Your task to perform on an android device: Go to battery settings Image 0: 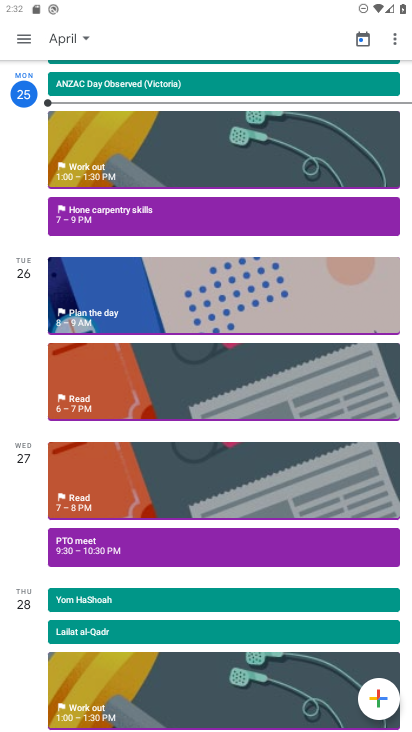
Step 0: press home button
Your task to perform on an android device: Go to battery settings Image 1: 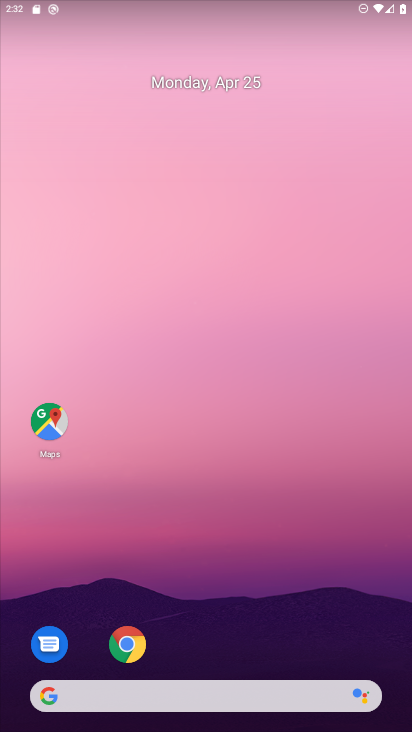
Step 1: drag from (202, 640) to (170, 367)
Your task to perform on an android device: Go to battery settings Image 2: 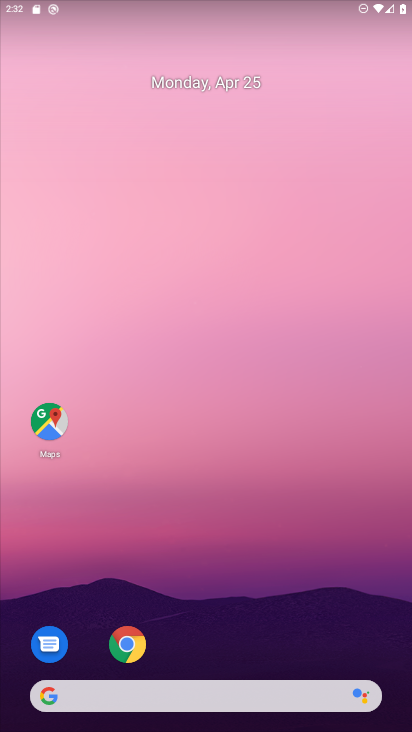
Step 2: drag from (253, 638) to (200, 299)
Your task to perform on an android device: Go to battery settings Image 3: 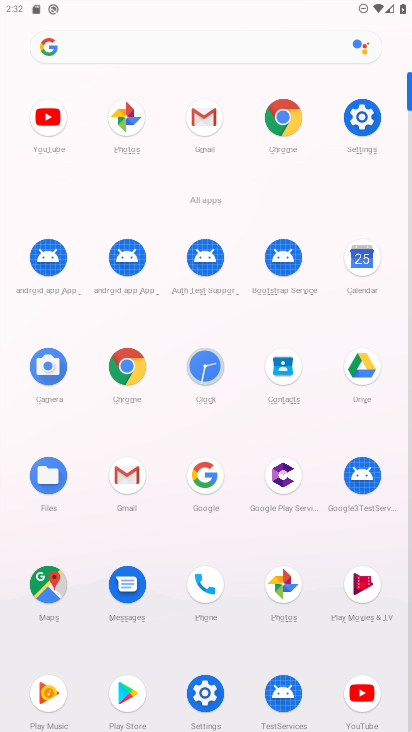
Step 3: click (354, 121)
Your task to perform on an android device: Go to battery settings Image 4: 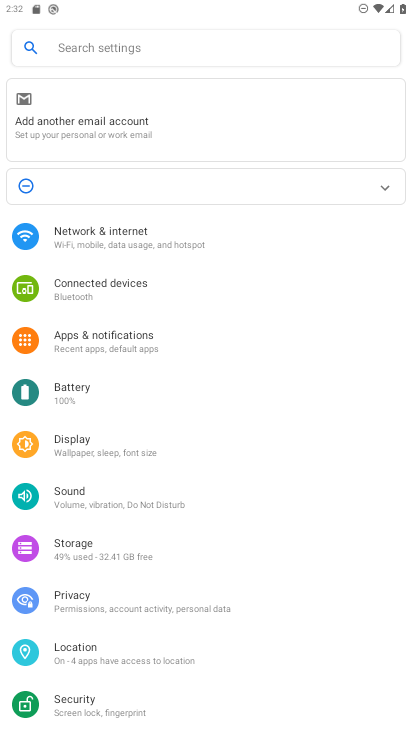
Step 4: click (98, 406)
Your task to perform on an android device: Go to battery settings Image 5: 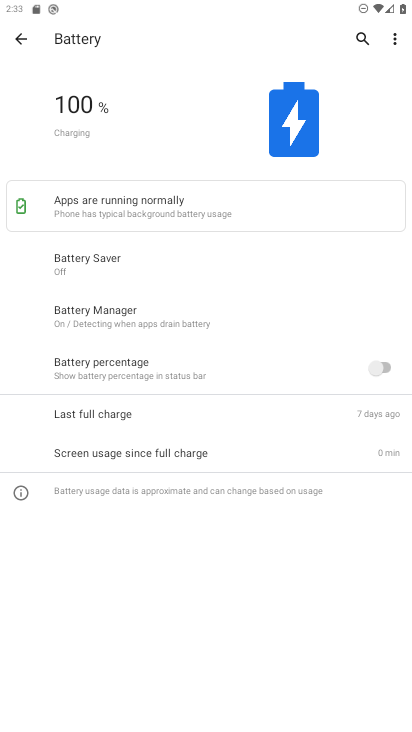
Step 5: task complete